Your task to perform on an android device: install app "Facebook Messenger" Image 0: 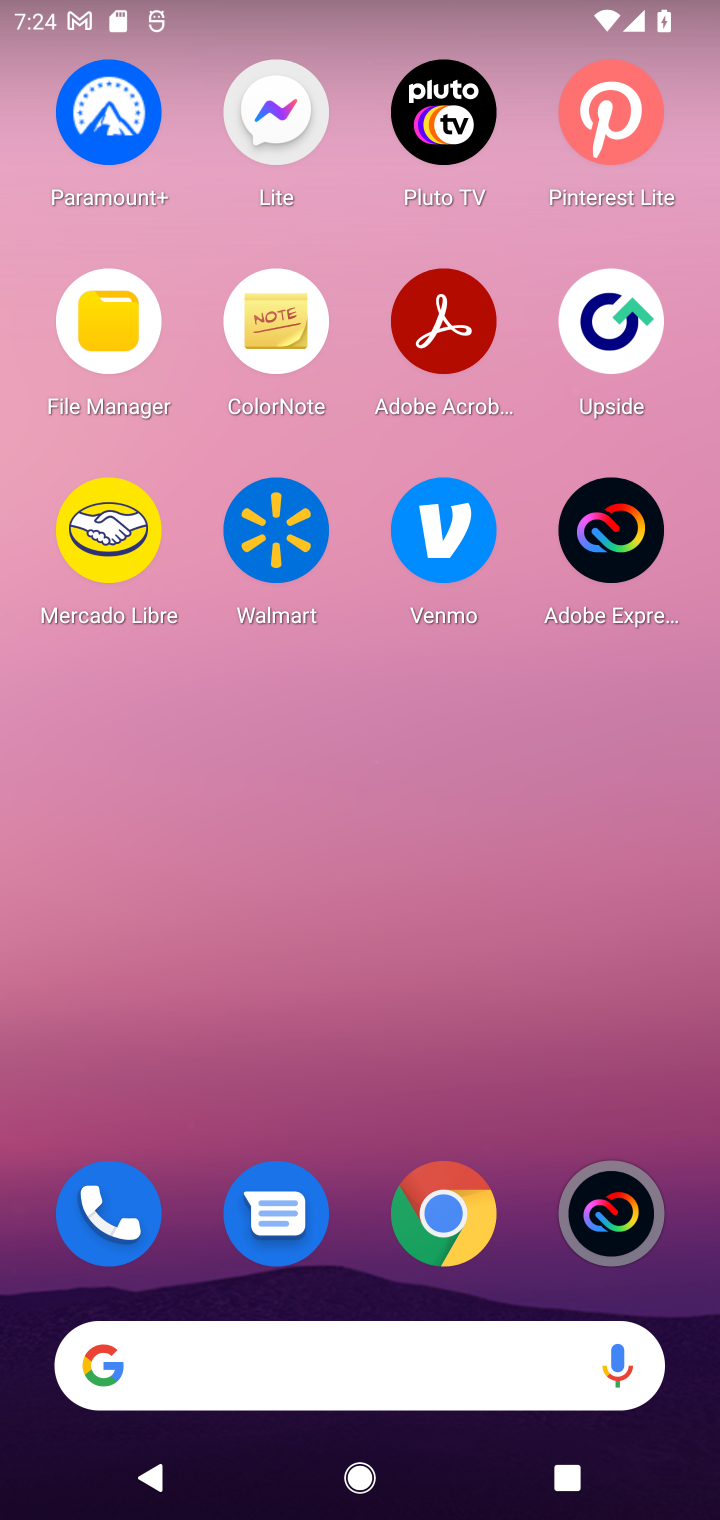
Step 0: drag from (355, 1130) to (394, 36)
Your task to perform on an android device: install app "Facebook Messenger" Image 1: 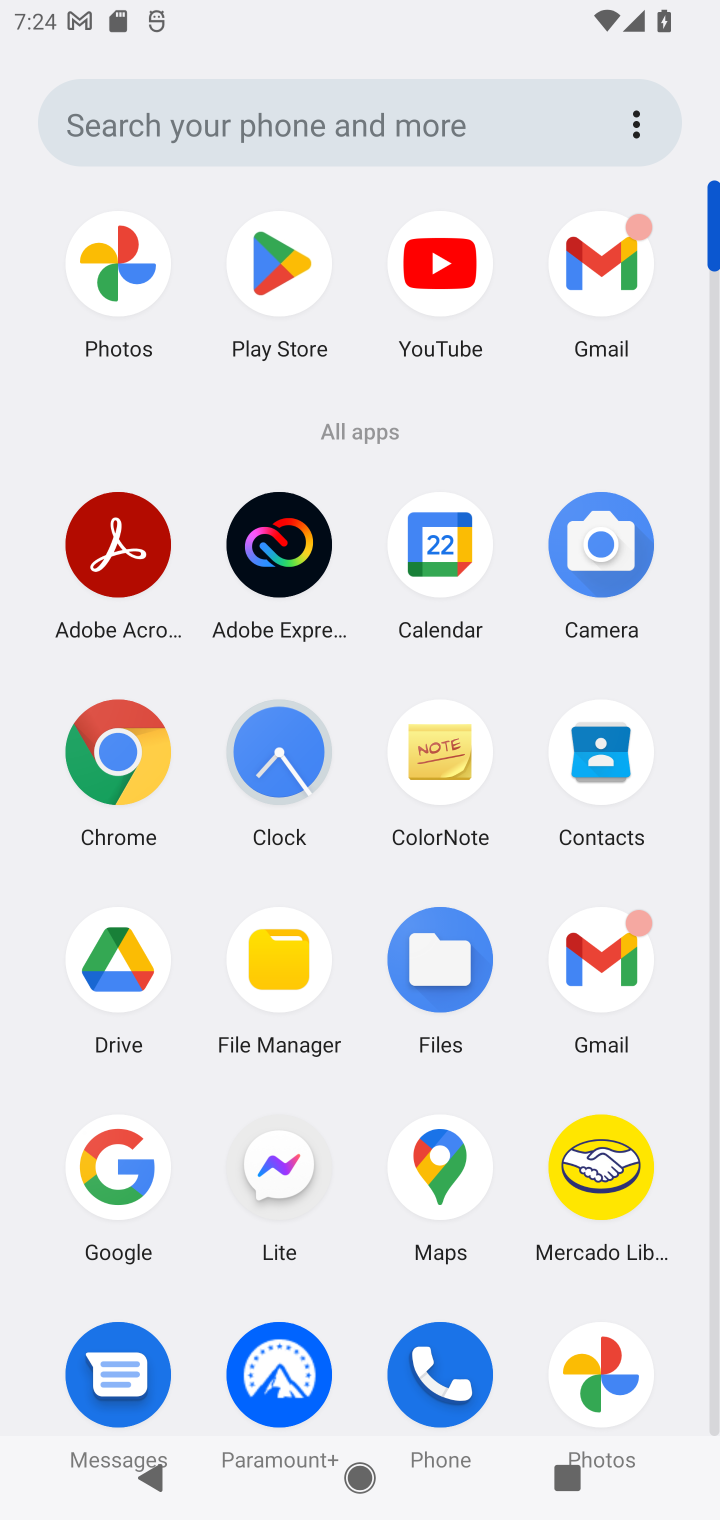
Step 1: click (269, 257)
Your task to perform on an android device: install app "Facebook Messenger" Image 2: 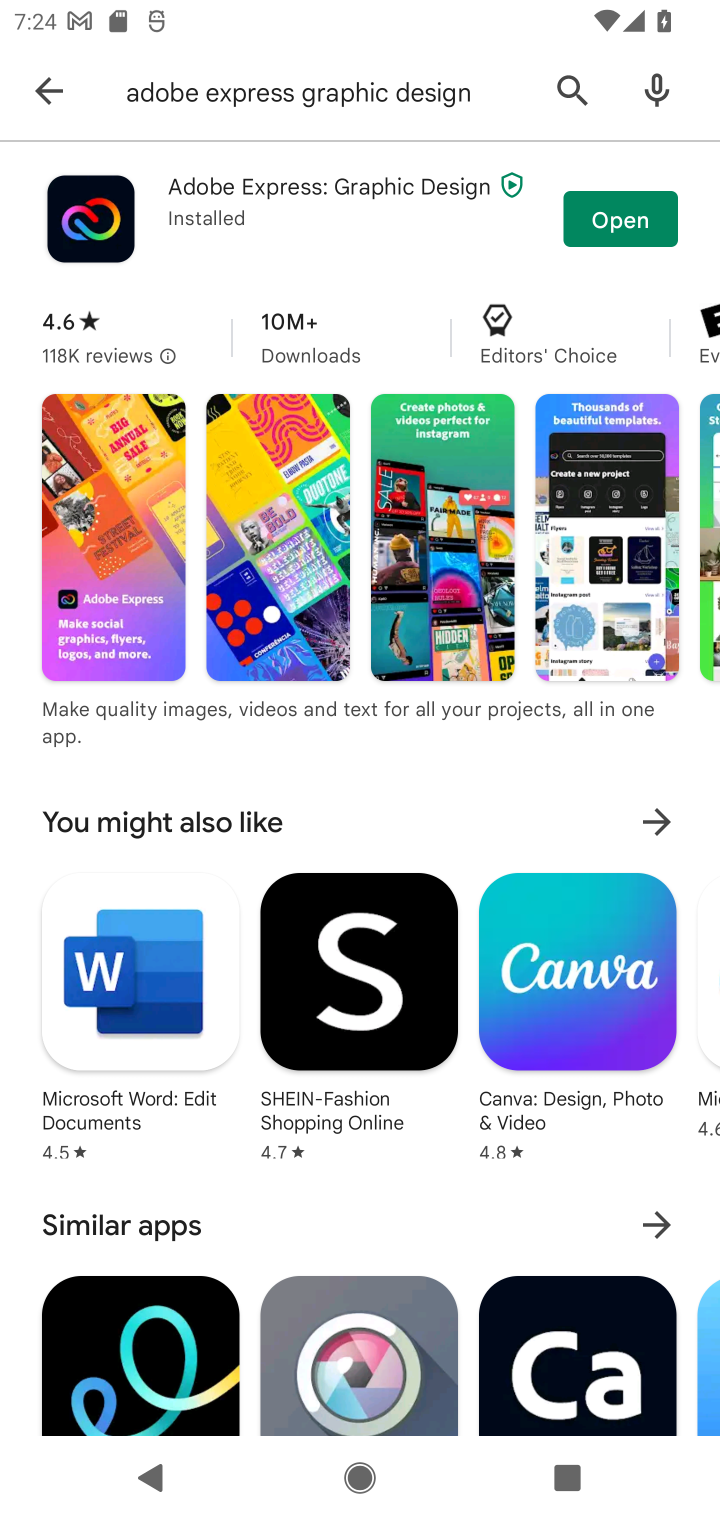
Step 2: click (555, 88)
Your task to perform on an android device: install app "Facebook Messenger" Image 3: 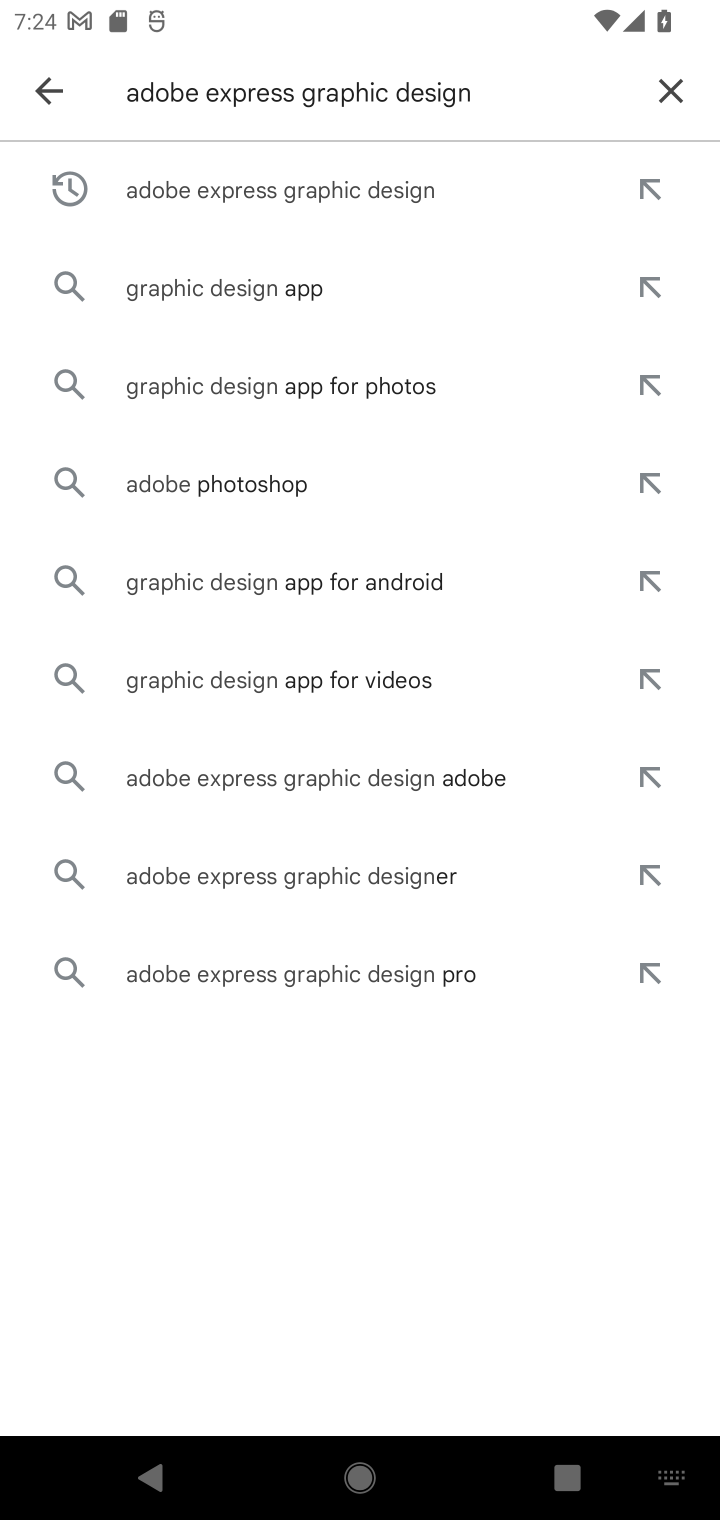
Step 3: click (657, 90)
Your task to perform on an android device: install app "Facebook Messenger" Image 4: 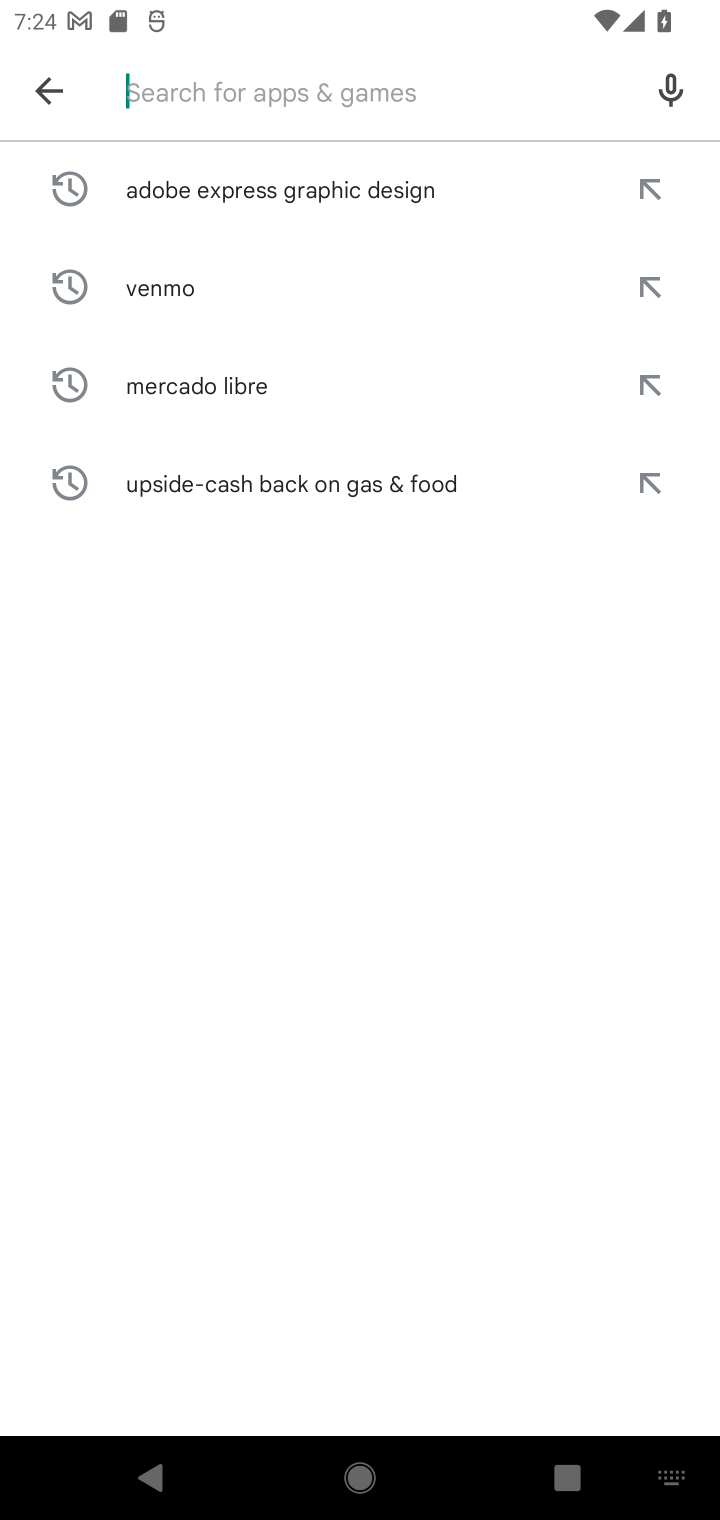
Step 4: type "Facebook Messenger"
Your task to perform on an android device: install app "Facebook Messenger" Image 5: 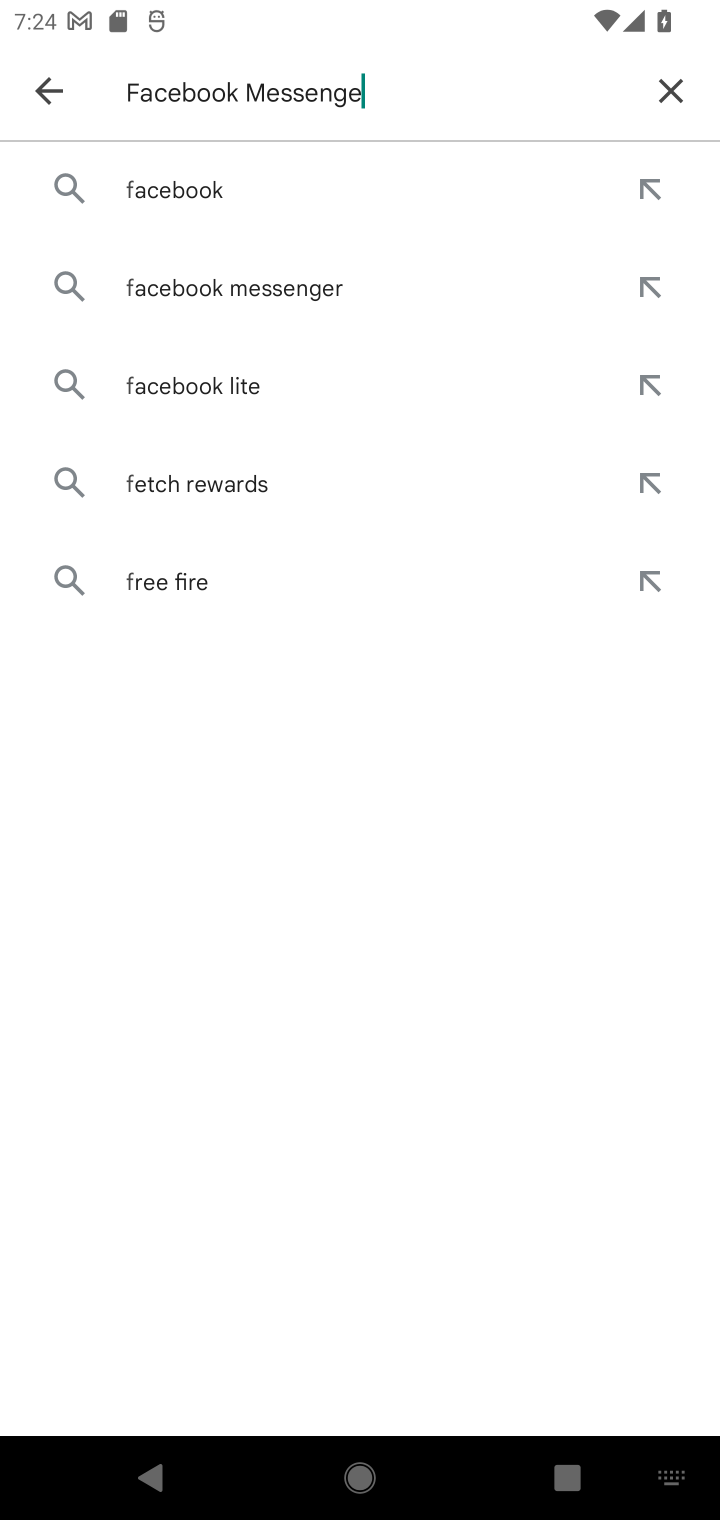
Step 5: type ""
Your task to perform on an android device: install app "Facebook Messenger" Image 6: 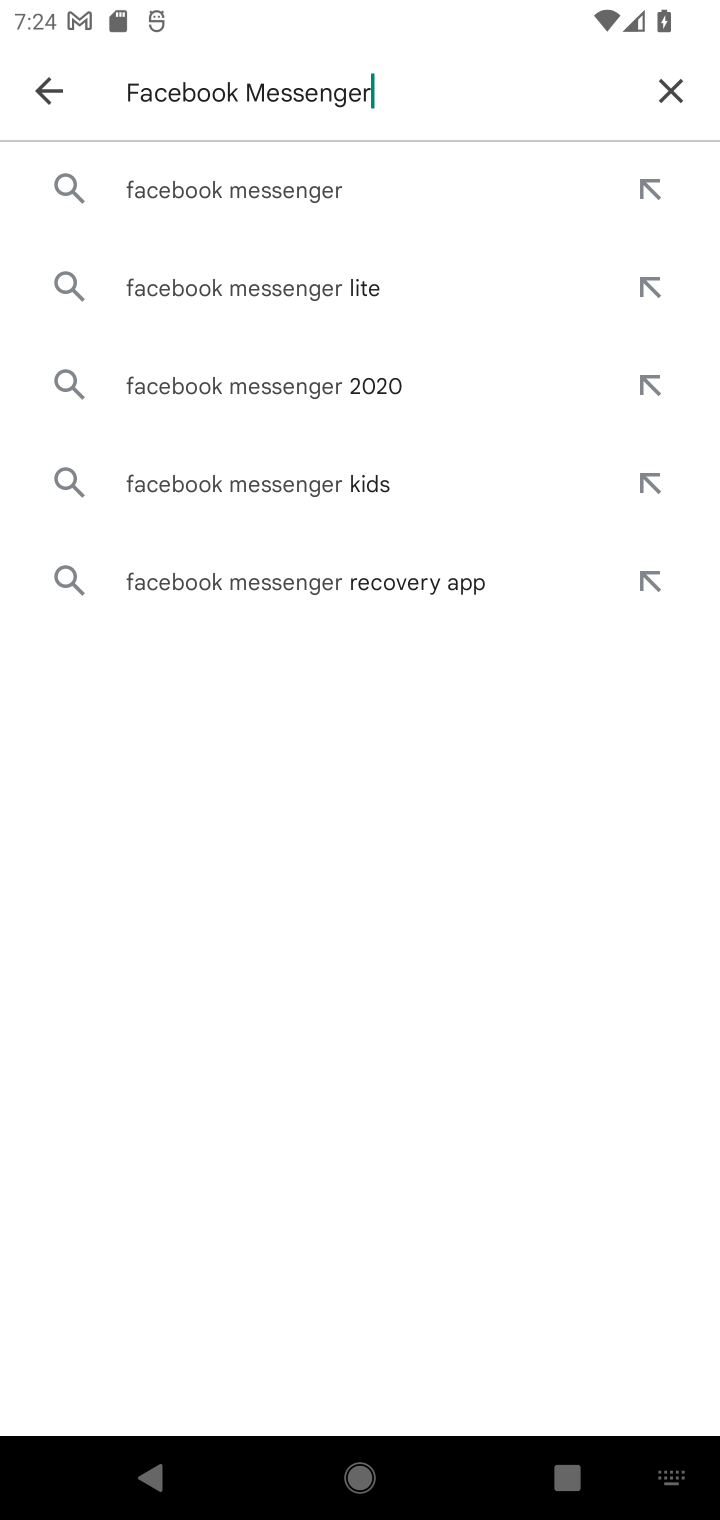
Step 6: click (336, 195)
Your task to perform on an android device: install app "Facebook Messenger" Image 7: 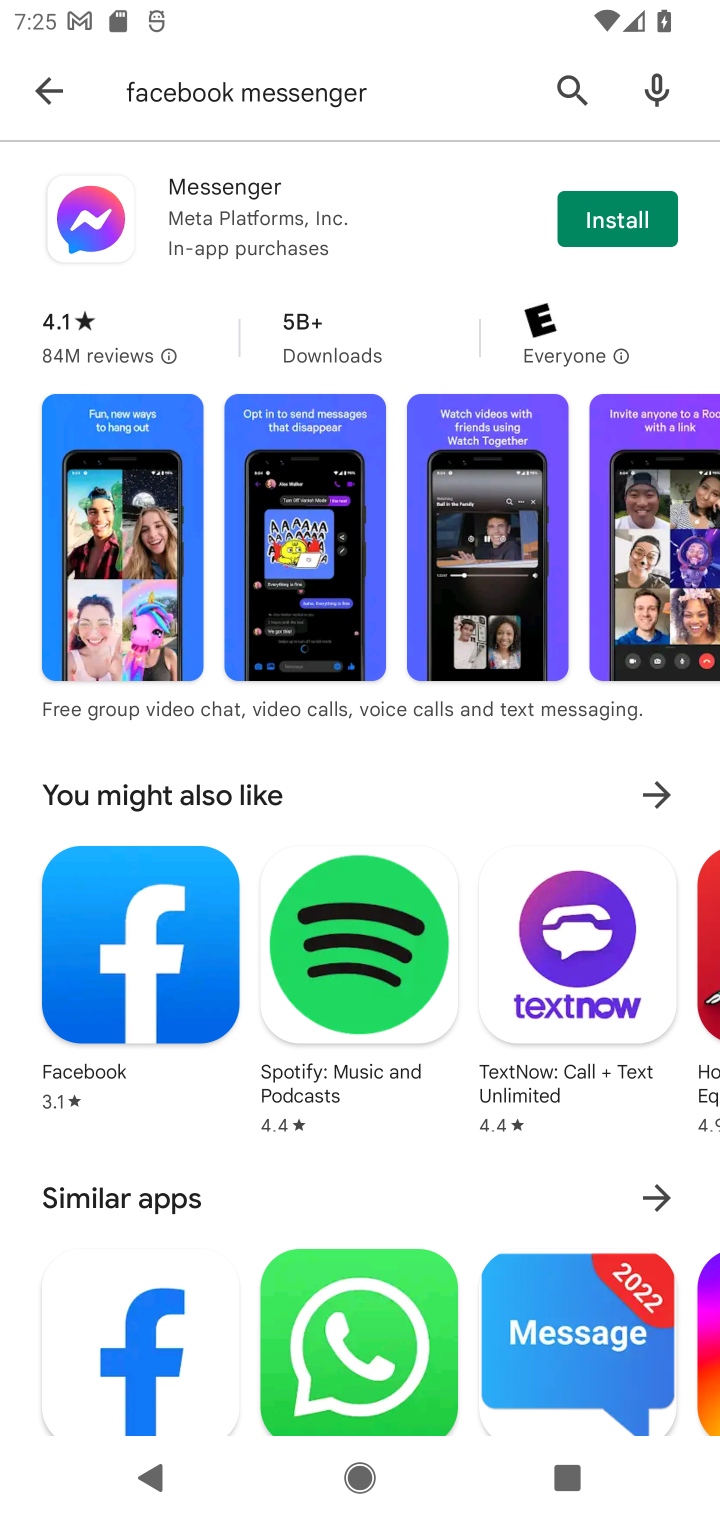
Step 7: click (620, 220)
Your task to perform on an android device: install app "Facebook Messenger" Image 8: 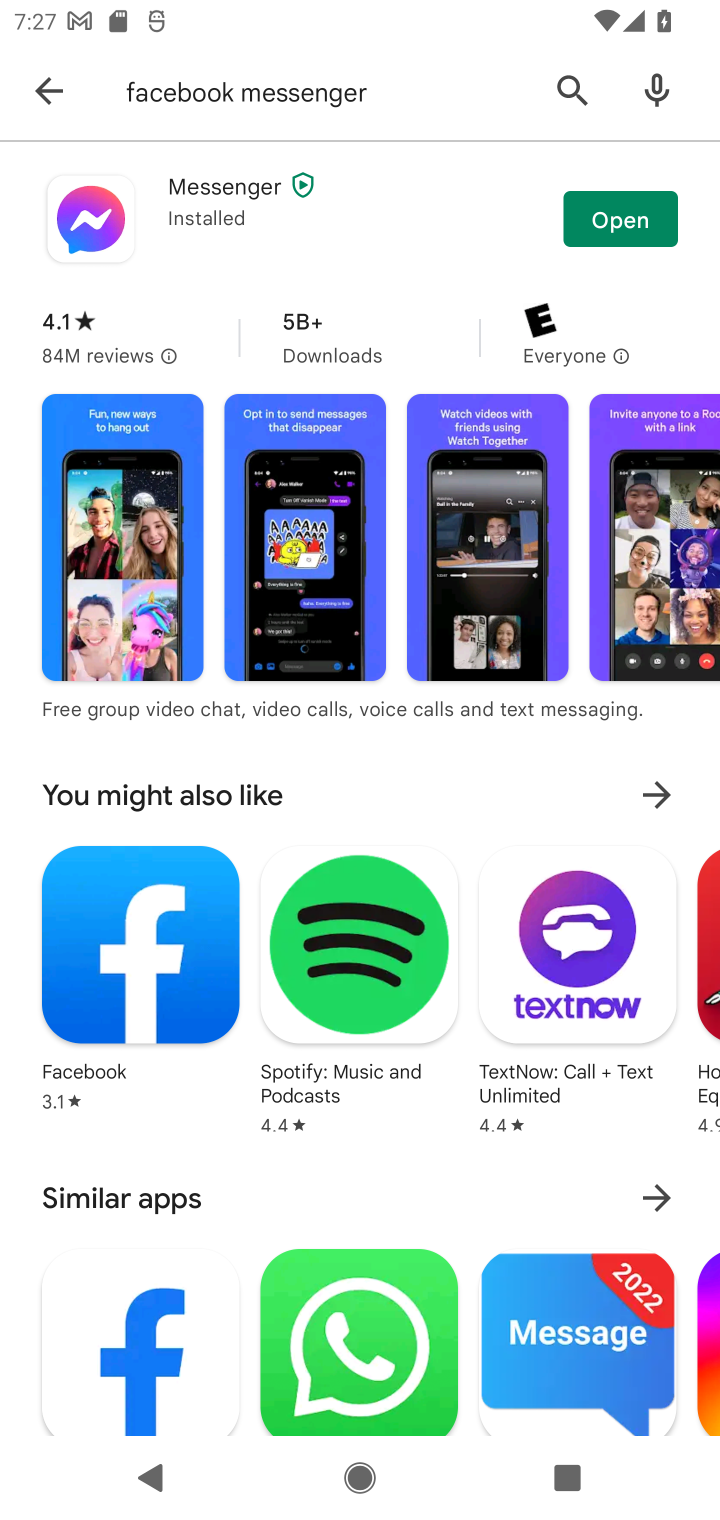
Step 8: click (617, 213)
Your task to perform on an android device: install app "Facebook Messenger" Image 9: 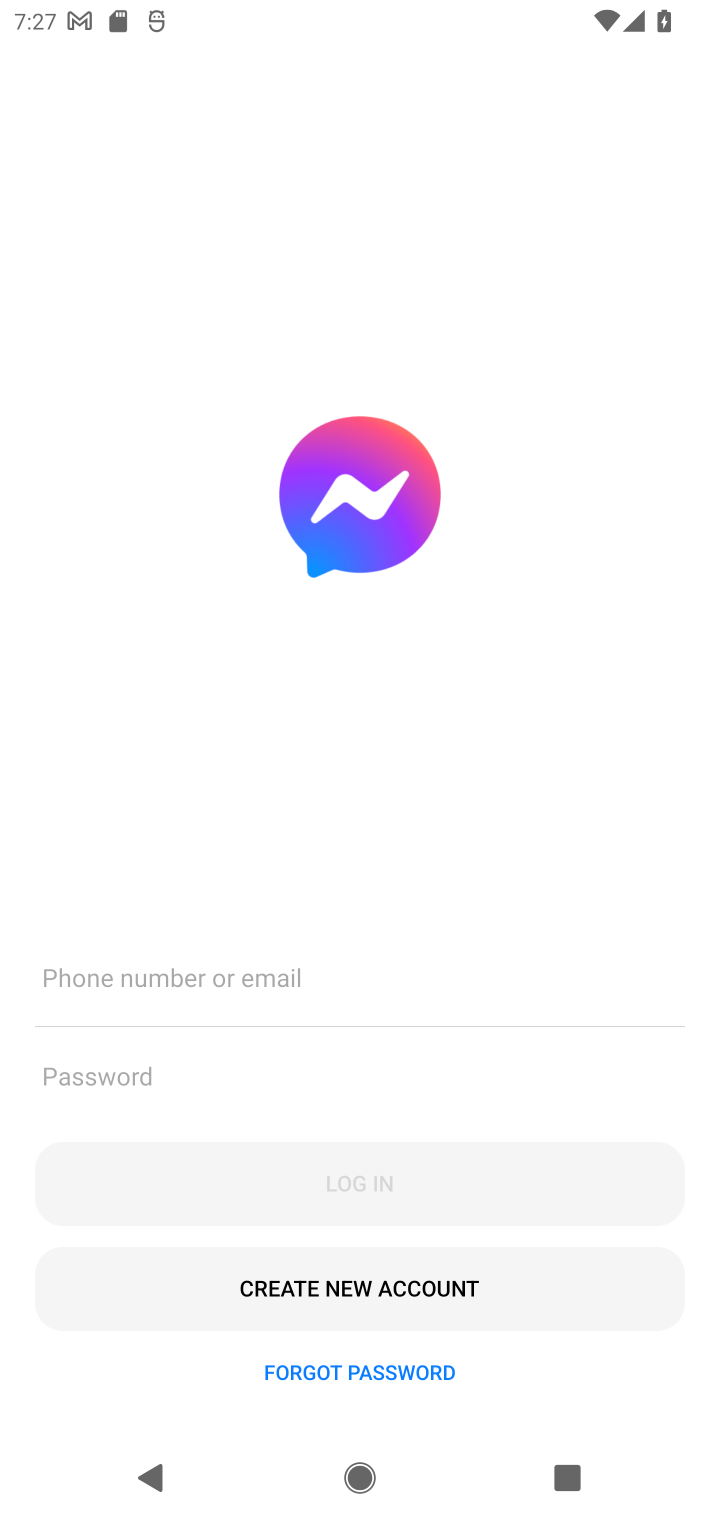
Step 9: task complete